Your task to perform on an android device: Search for a new desk on Ikea Image 0: 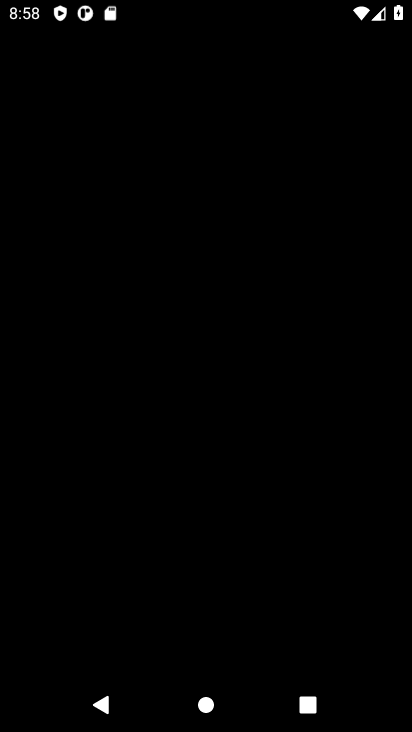
Step 0: press home button
Your task to perform on an android device: Search for a new desk on Ikea Image 1: 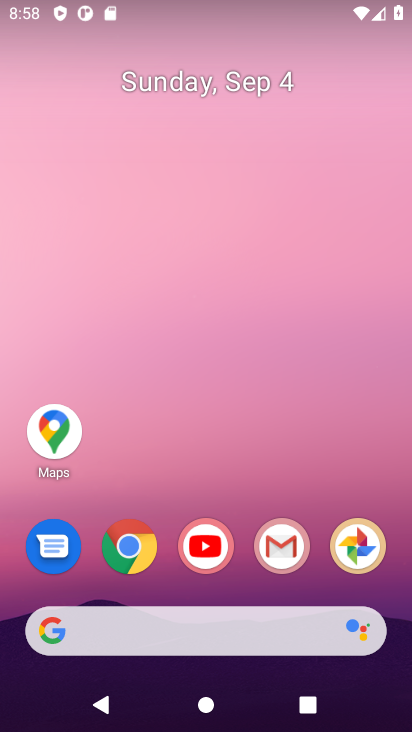
Step 1: click (136, 544)
Your task to perform on an android device: Search for a new desk on Ikea Image 2: 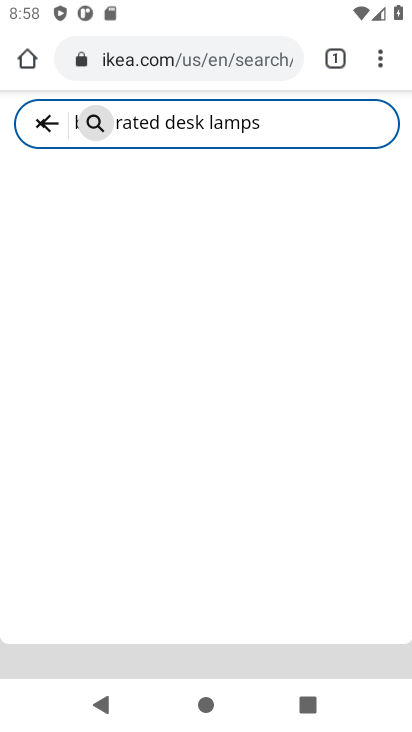
Step 2: click (42, 123)
Your task to perform on an android device: Search for a new desk on Ikea Image 3: 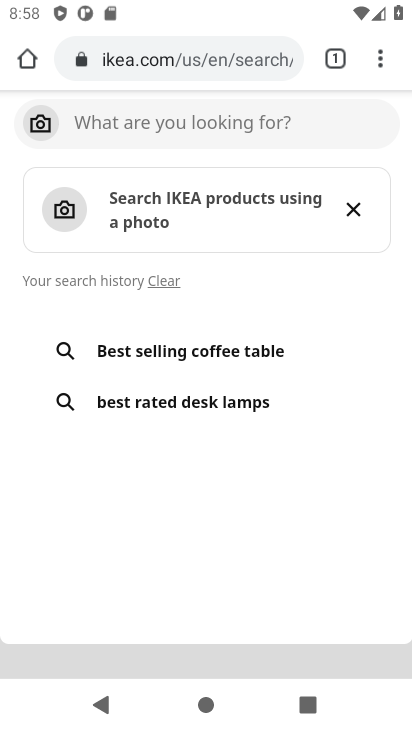
Step 3: click (94, 124)
Your task to perform on an android device: Search for a new desk on Ikea Image 4: 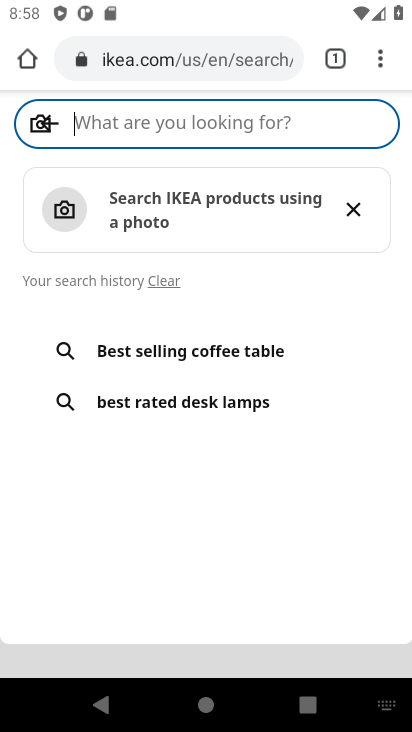
Step 4: type "new desk "
Your task to perform on an android device: Search for a new desk on Ikea Image 5: 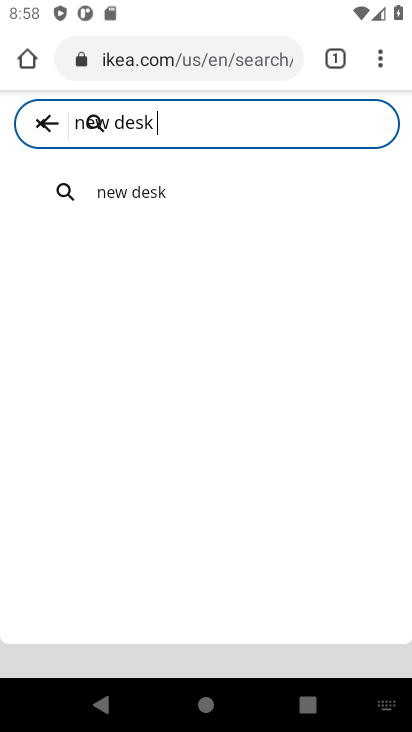
Step 5: click (117, 201)
Your task to perform on an android device: Search for a new desk on Ikea Image 6: 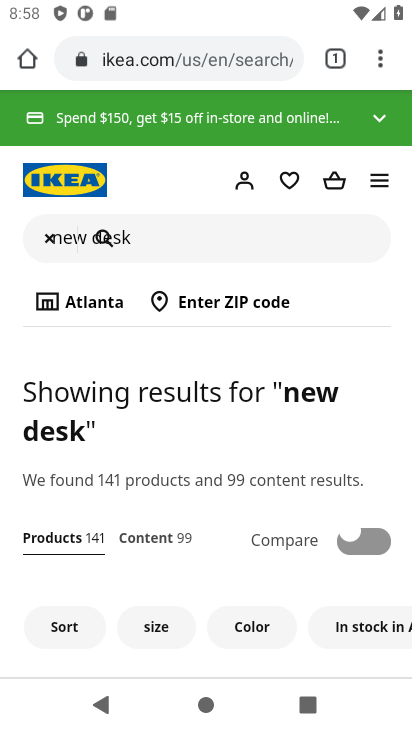
Step 6: drag from (201, 446) to (222, 205)
Your task to perform on an android device: Search for a new desk on Ikea Image 7: 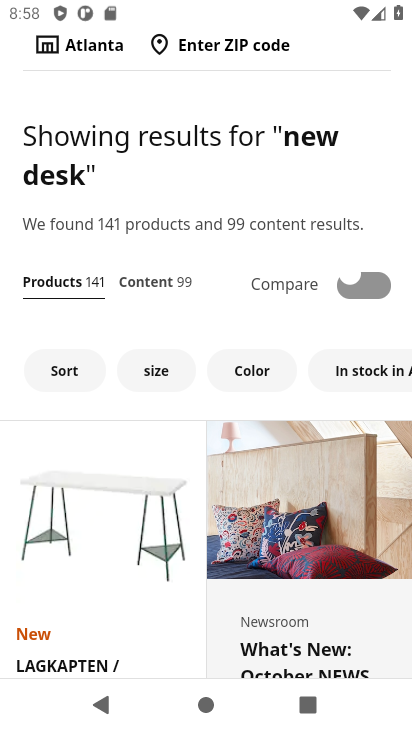
Step 7: drag from (179, 434) to (211, 196)
Your task to perform on an android device: Search for a new desk on Ikea Image 8: 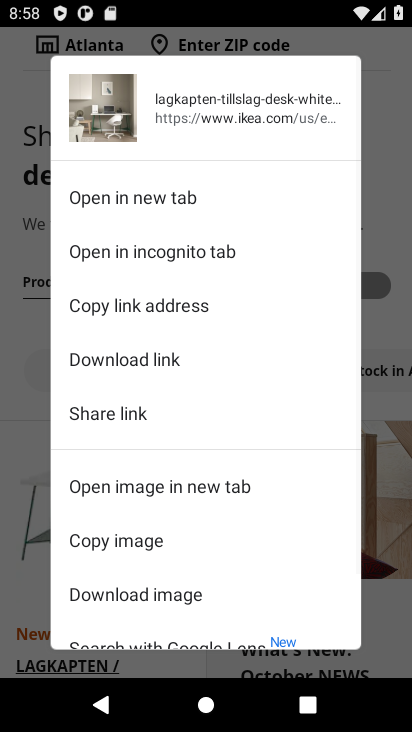
Step 8: click (397, 259)
Your task to perform on an android device: Search for a new desk on Ikea Image 9: 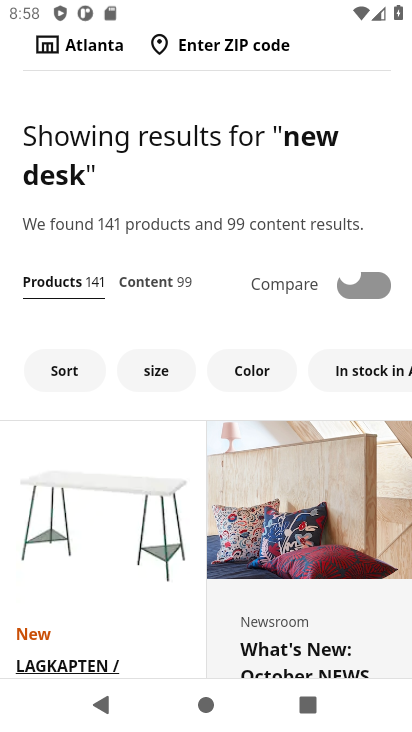
Step 9: drag from (294, 424) to (301, 160)
Your task to perform on an android device: Search for a new desk on Ikea Image 10: 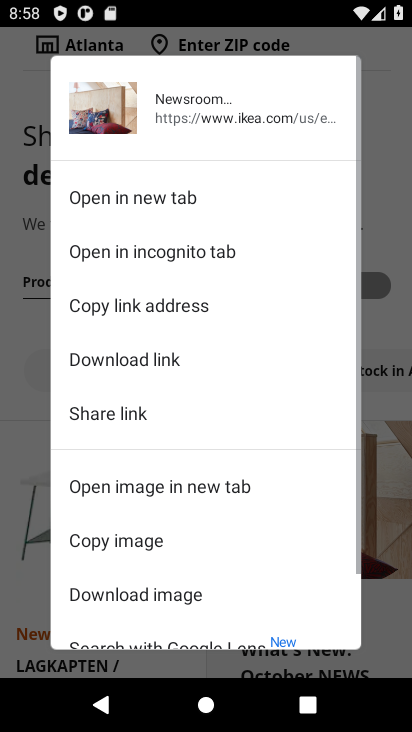
Step 10: click (395, 285)
Your task to perform on an android device: Search for a new desk on Ikea Image 11: 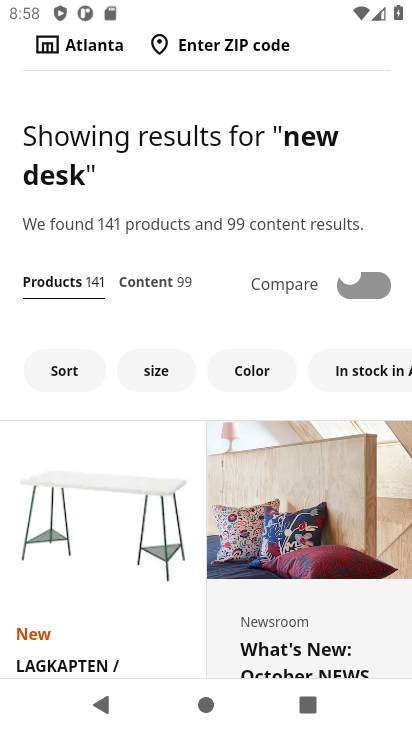
Step 11: task complete